Your task to perform on an android device: Toggle the flashlight Image 0: 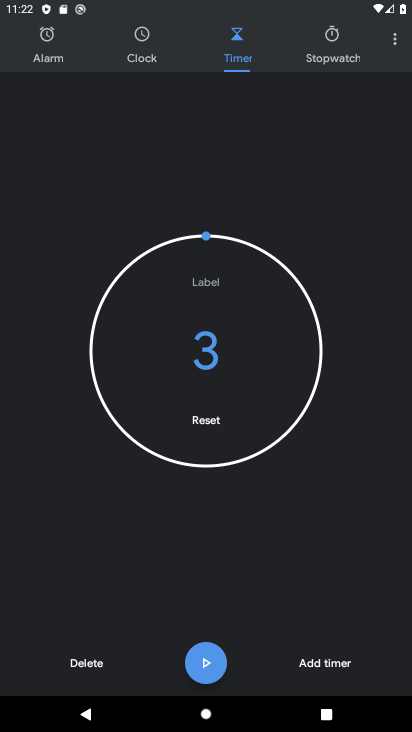
Step 0: press home button
Your task to perform on an android device: Toggle the flashlight Image 1: 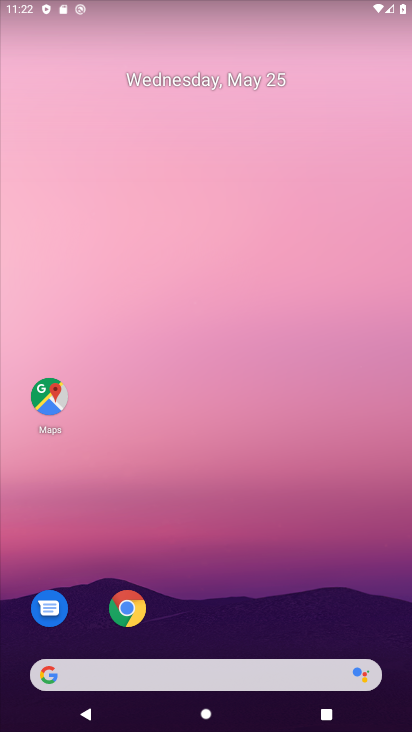
Step 1: drag from (192, 611) to (240, 153)
Your task to perform on an android device: Toggle the flashlight Image 2: 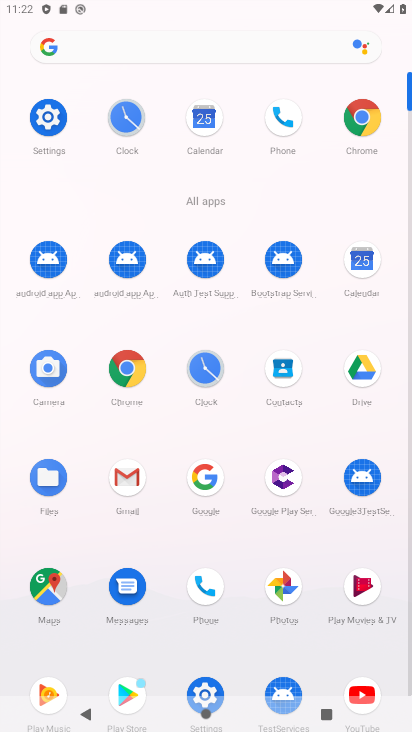
Step 2: click (18, 118)
Your task to perform on an android device: Toggle the flashlight Image 3: 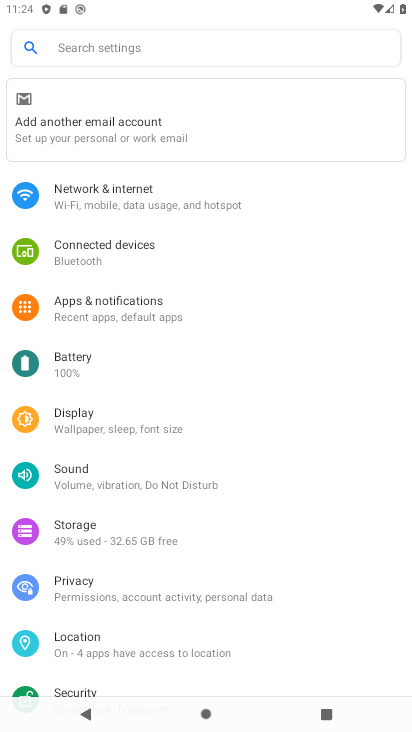
Step 3: task complete